Your task to perform on an android device: turn vacation reply on in the gmail app Image 0: 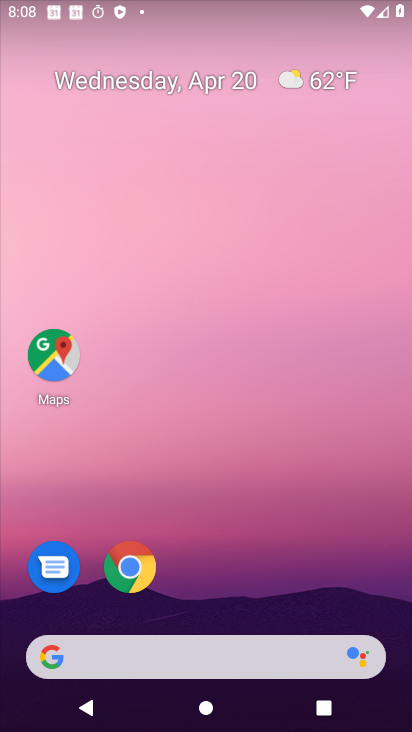
Step 0: drag from (353, 548) to (289, 42)
Your task to perform on an android device: turn vacation reply on in the gmail app Image 1: 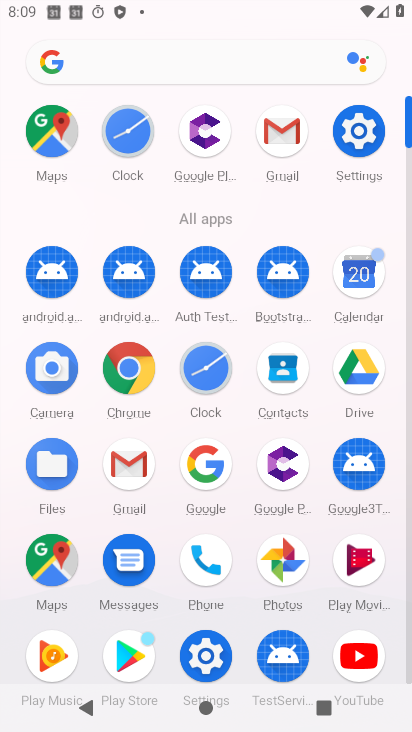
Step 1: click (282, 123)
Your task to perform on an android device: turn vacation reply on in the gmail app Image 2: 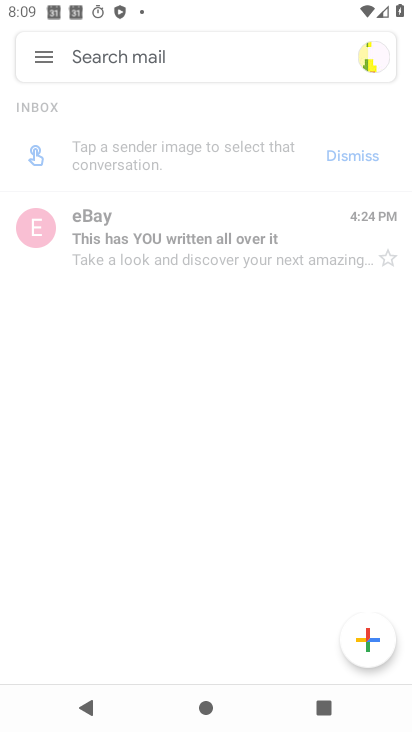
Step 2: click (45, 62)
Your task to perform on an android device: turn vacation reply on in the gmail app Image 3: 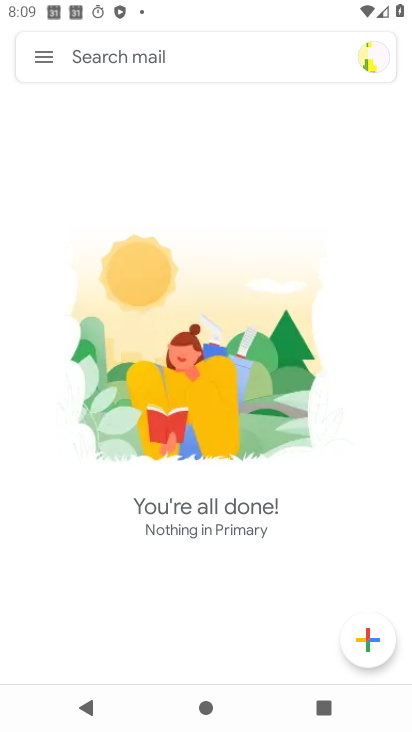
Step 3: click (40, 59)
Your task to perform on an android device: turn vacation reply on in the gmail app Image 4: 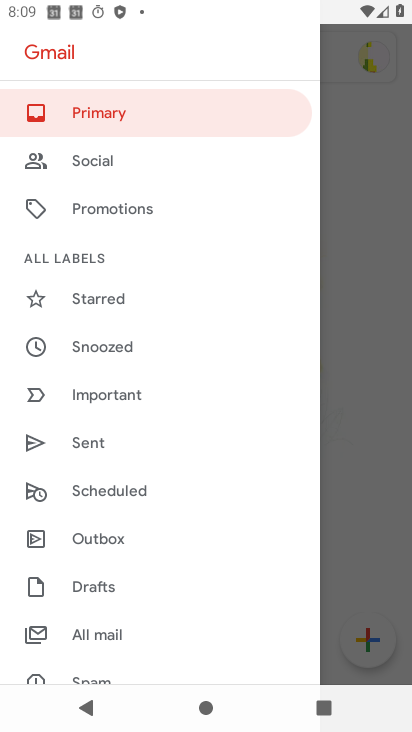
Step 4: drag from (251, 633) to (256, 271)
Your task to perform on an android device: turn vacation reply on in the gmail app Image 5: 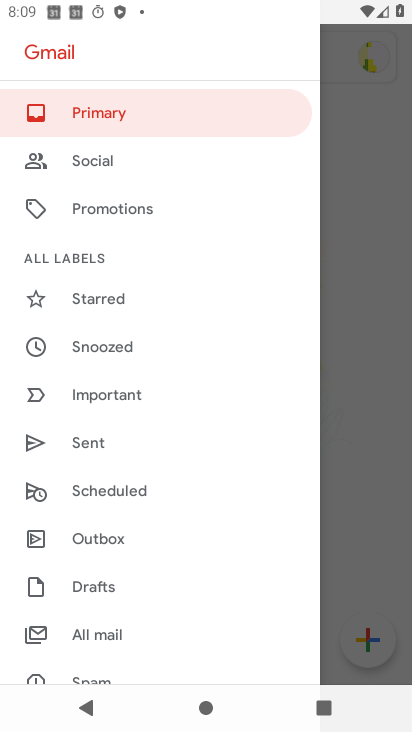
Step 5: drag from (268, 542) to (218, 4)
Your task to perform on an android device: turn vacation reply on in the gmail app Image 6: 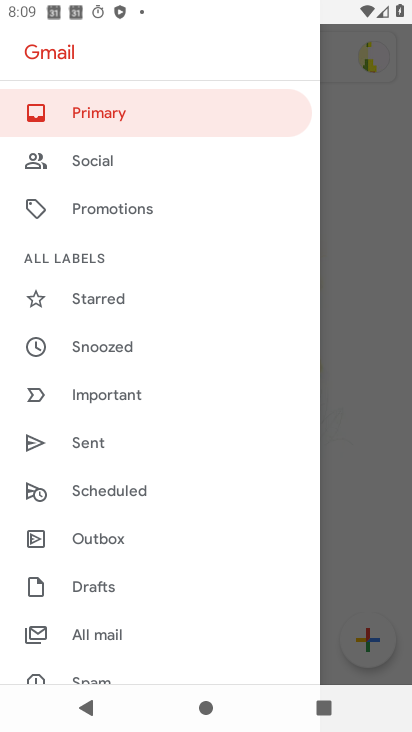
Step 6: drag from (210, 593) to (235, 198)
Your task to perform on an android device: turn vacation reply on in the gmail app Image 7: 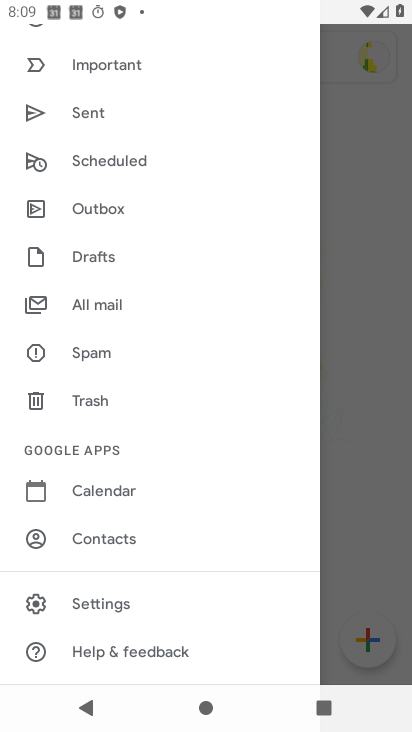
Step 7: click (79, 597)
Your task to perform on an android device: turn vacation reply on in the gmail app Image 8: 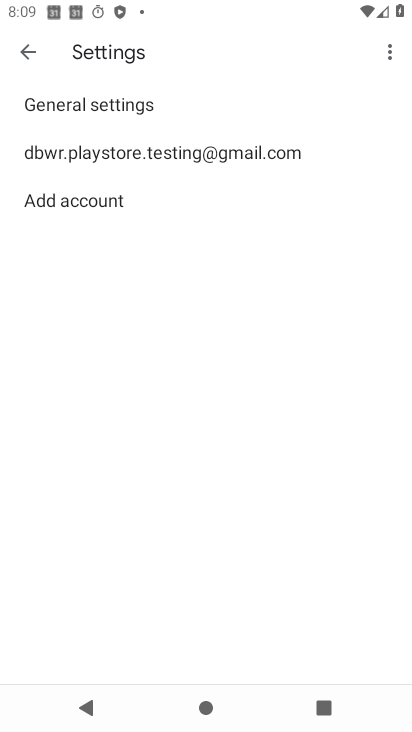
Step 8: click (107, 159)
Your task to perform on an android device: turn vacation reply on in the gmail app Image 9: 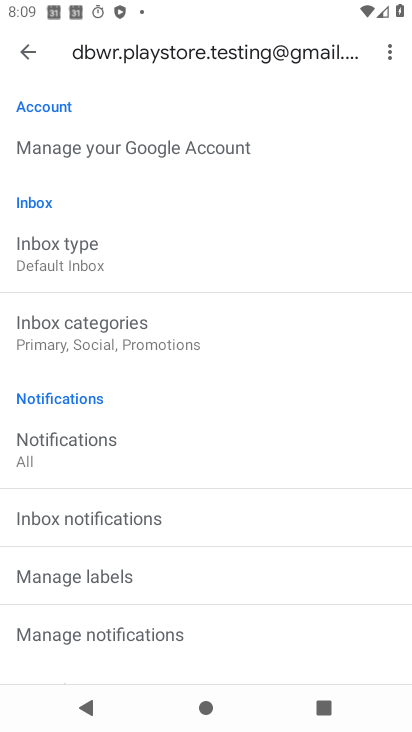
Step 9: drag from (295, 534) to (315, 93)
Your task to perform on an android device: turn vacation reply on in the gmail app Image 10: 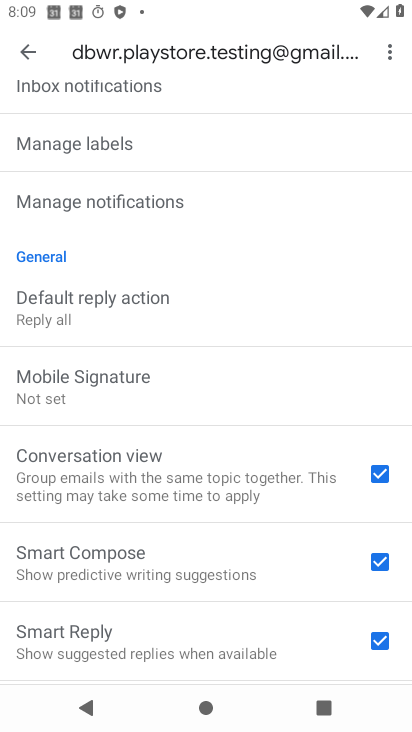
Step 10: drag from (316, 521) to (298, 169)
Your task to perform on an android device: turn vacation reply on in the gmail app Image 11: 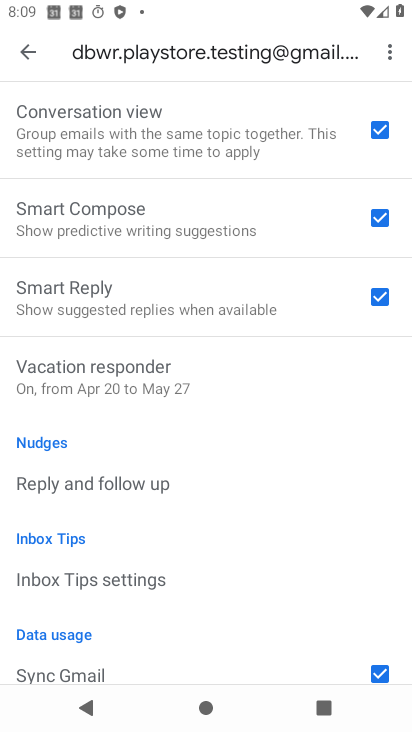
Step 11: click (132, 386)
Your task to perform on an android device: turn vacation reply on in the gmail app Image 12: 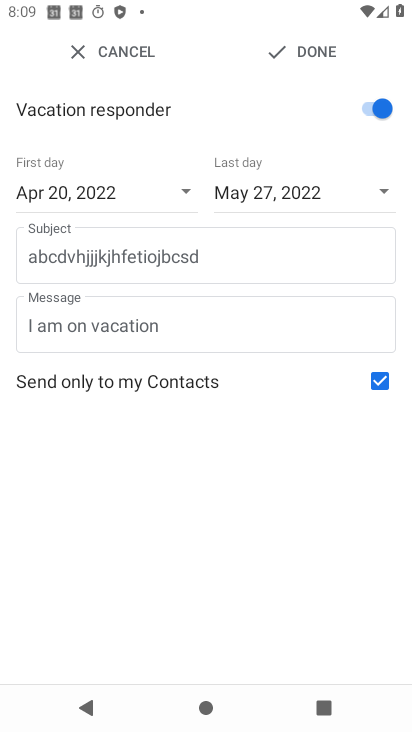
Step 12: click (294, 59)
Your task to perform on an android device: turn vacation reply on in the gmail app Image 13: 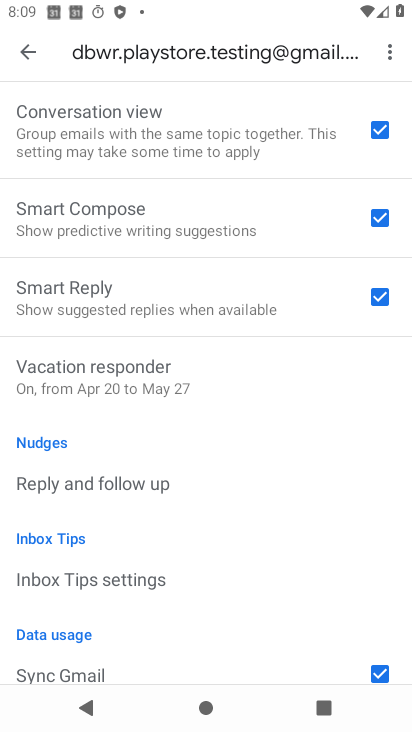
Step 13: task complete